Your task to perform on an android device: Go to CNN.com Image 0: 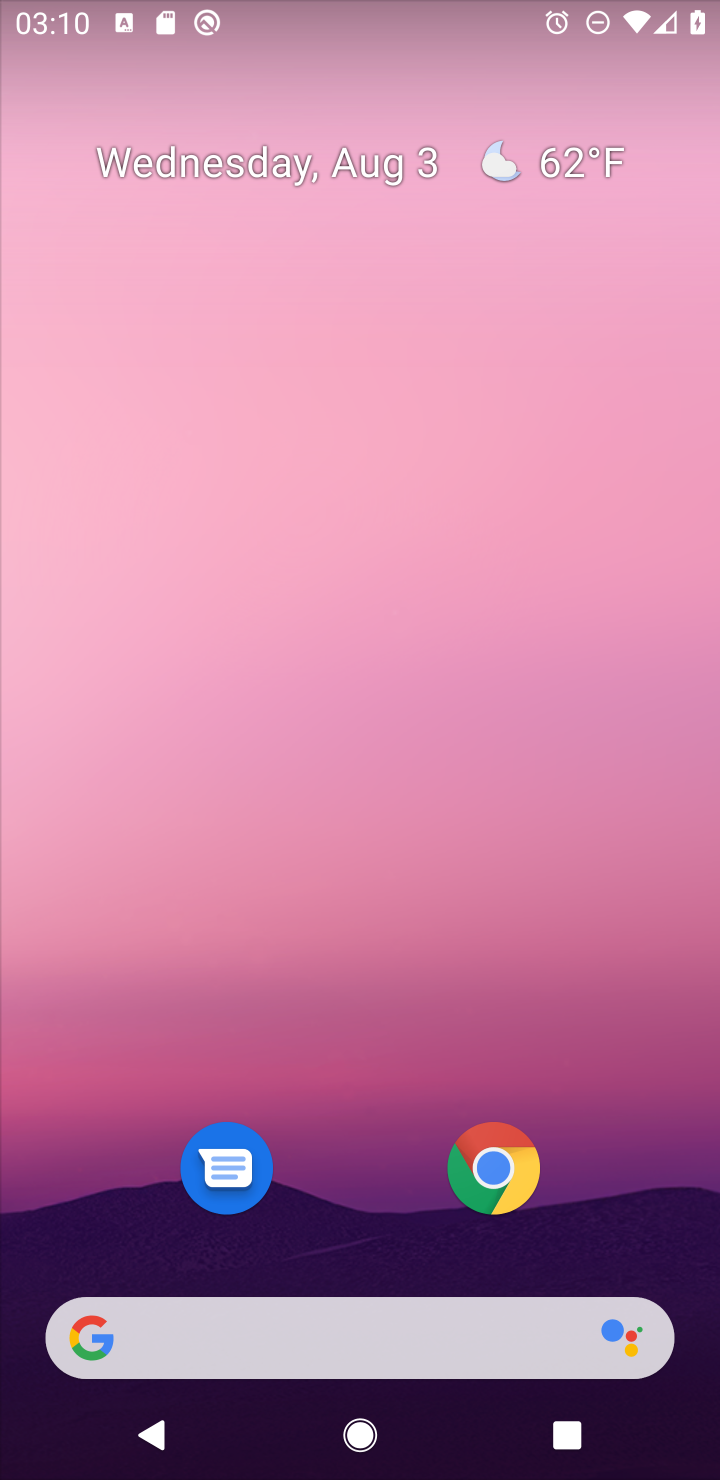
Step 0: click (493, 1177)
Your task to perform on an android device: Go to CNN.com Image 1: 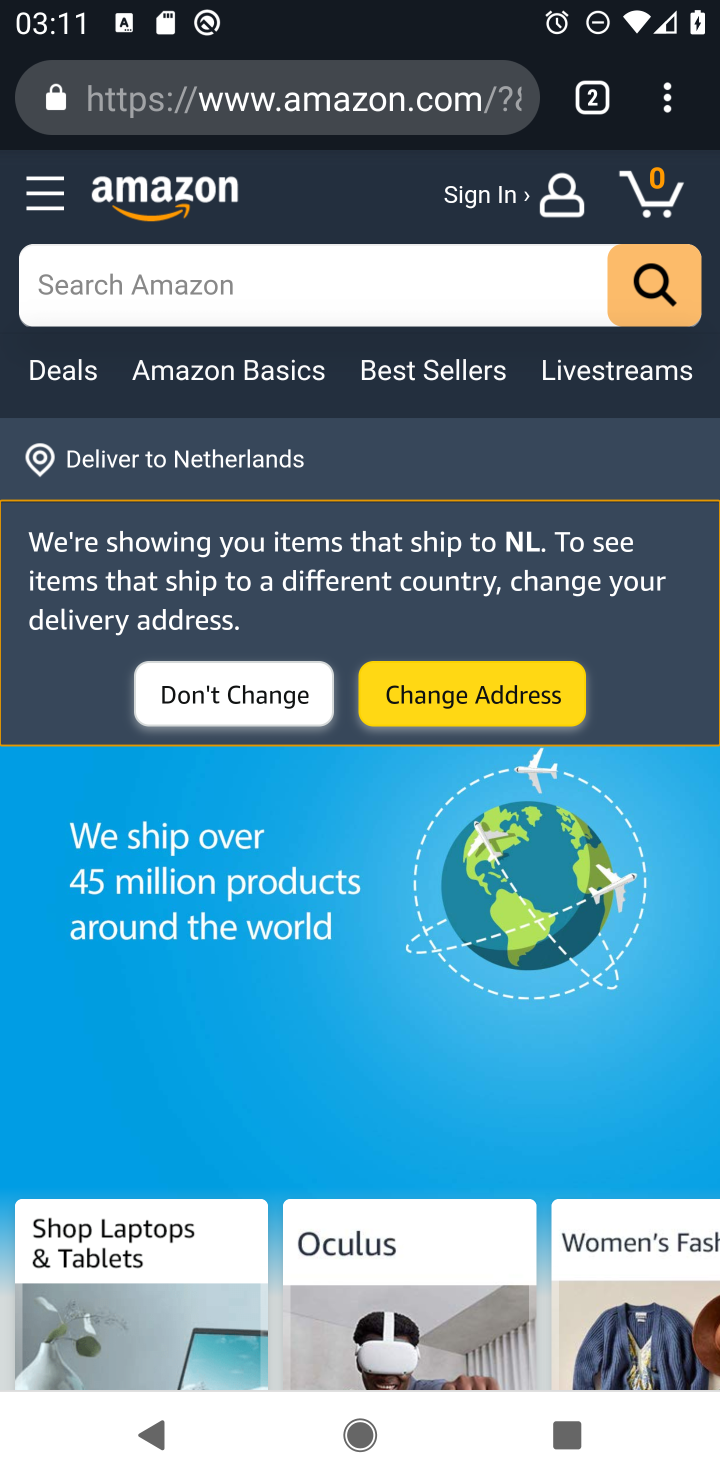
Step 1: click (512, 82)
Your task to perform on an android device: Go to CNN.com Image 2: 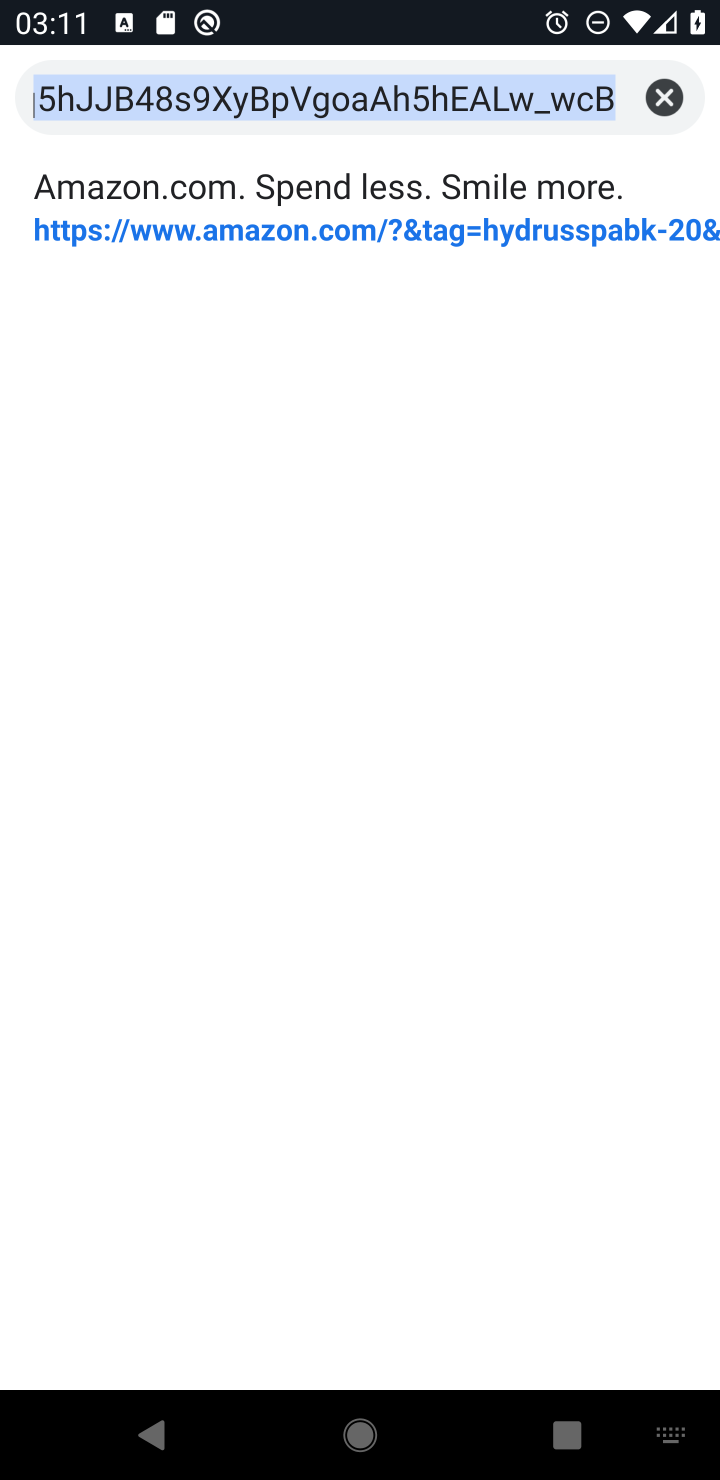
Step 2: click (661, 98)
Your task to perform on an android device: Go to CNN.com Image 3: 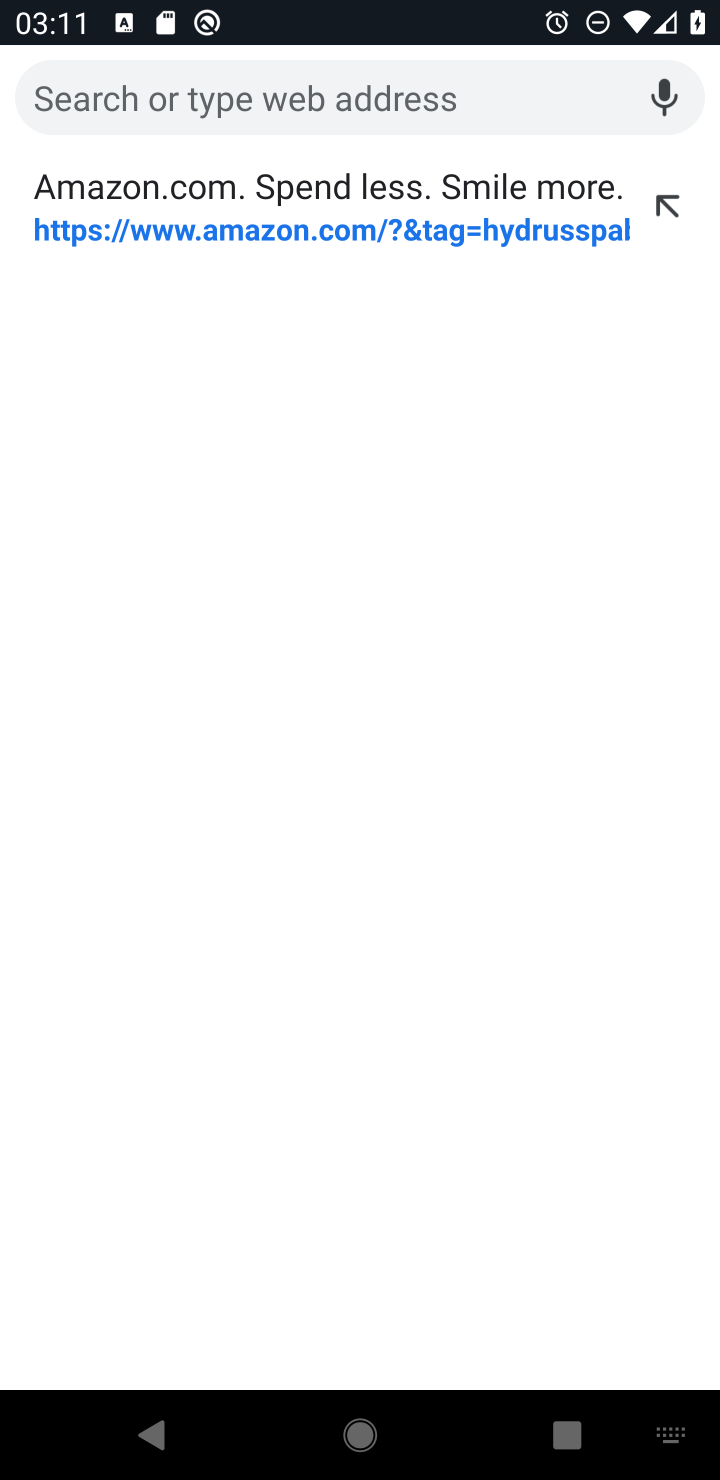
Step 3: type "CNN.com"
Your task to perform on an android device: Go to CNN.com Image 4: 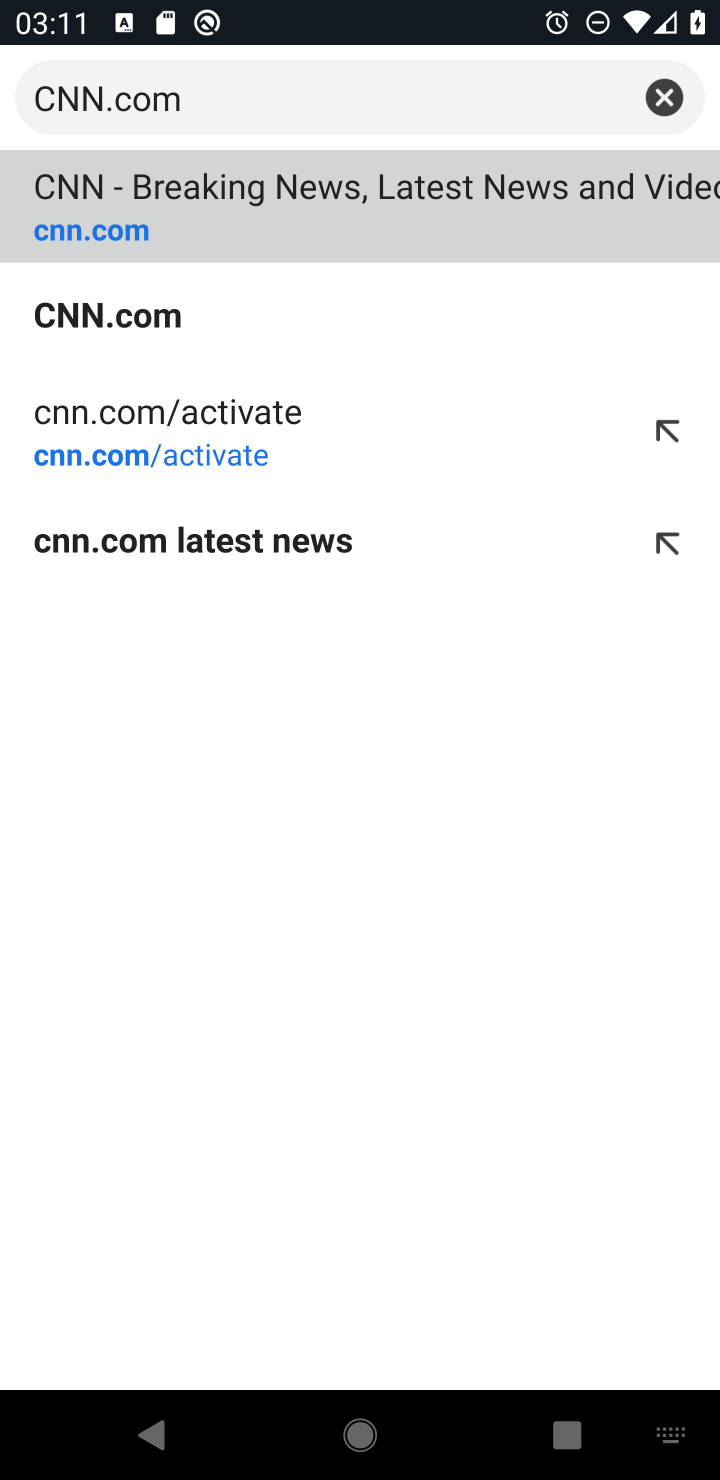
Step 4: click (210, 202)
Your task to perform on an android device: Go to CNN.com Image 5: 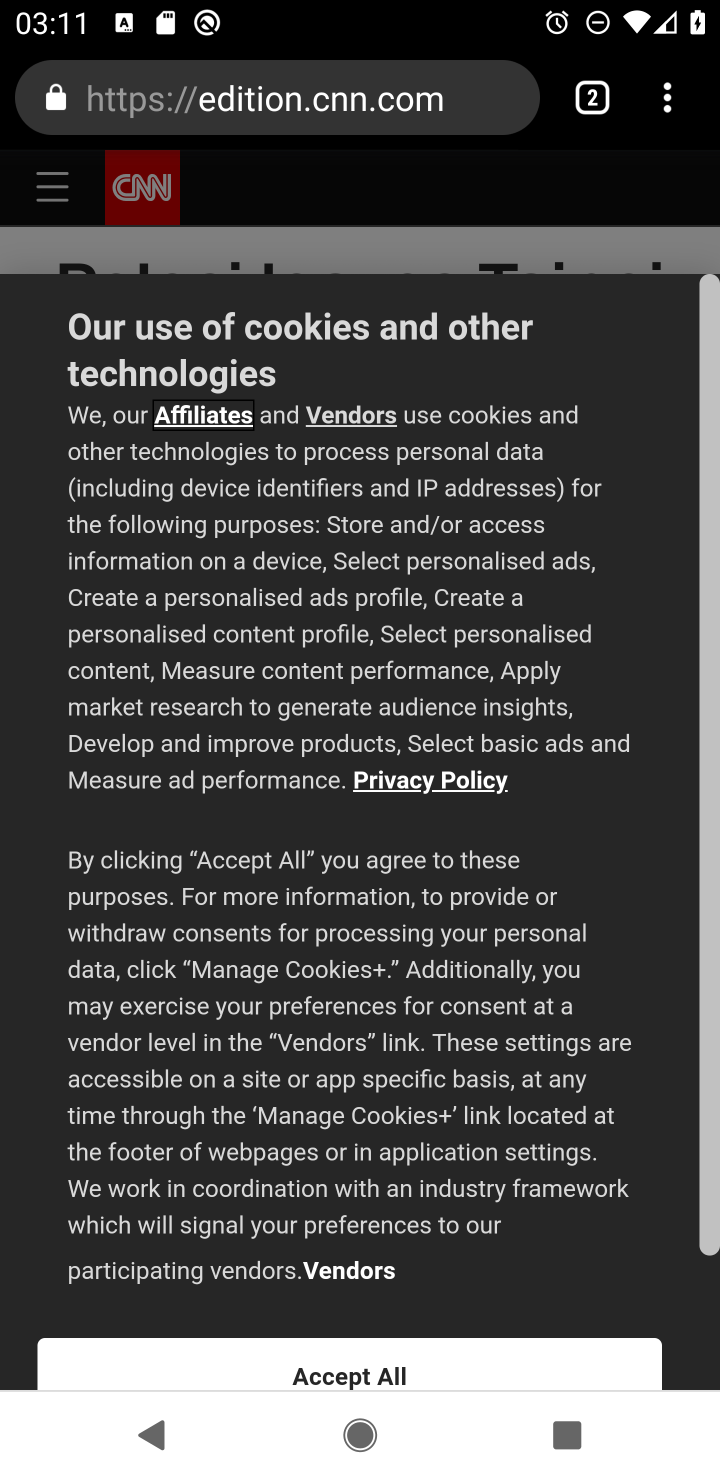
Step 5: click (353, 1367)
Your task to perform on an android device: Go to CNN.com Image 6: 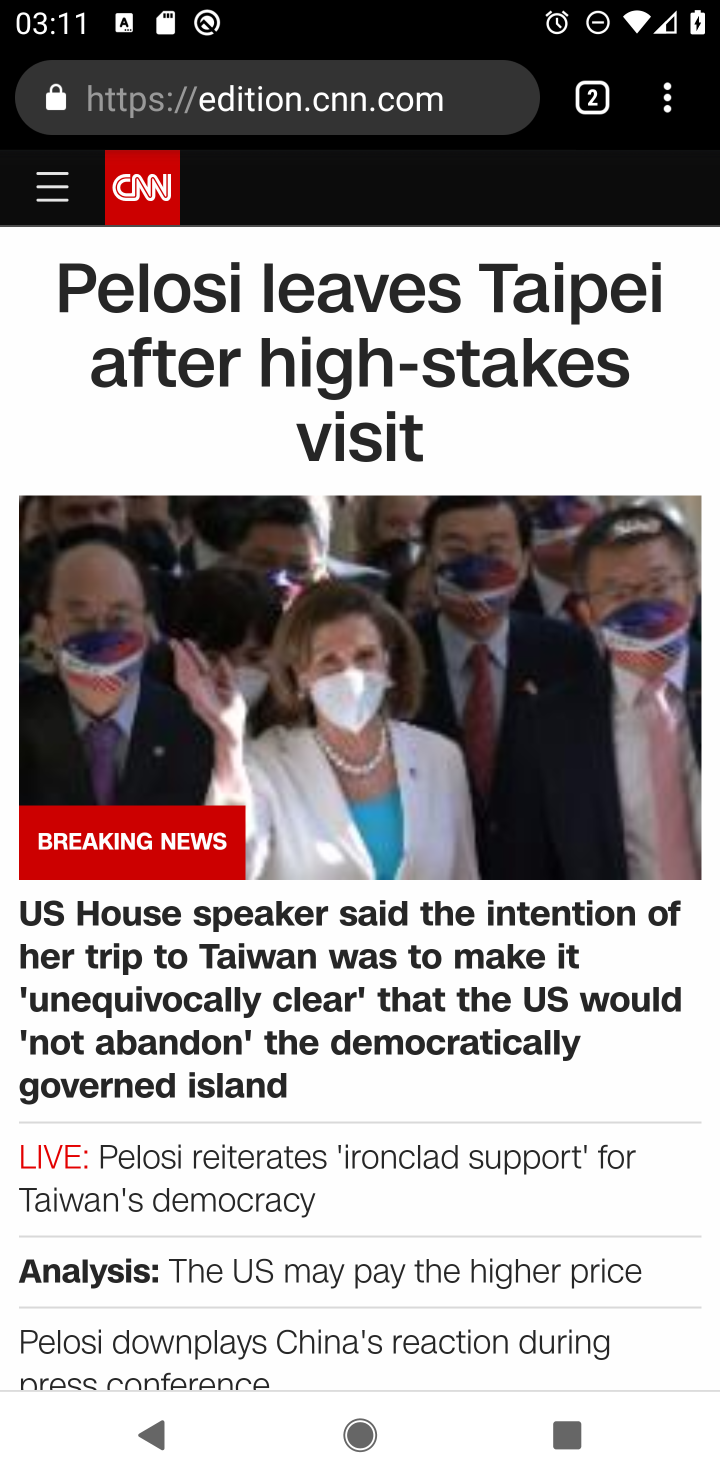
Step 6: task complete